Your task to perform on an android device: see tabs open on other devices in the chrome app Image 0: 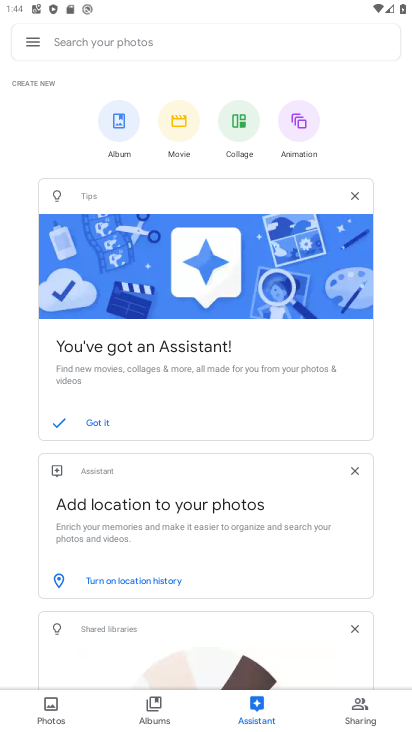
Step 0: press home button
Your task to perform on an android device: see tabs open on other devices in the chrome app Image 1: 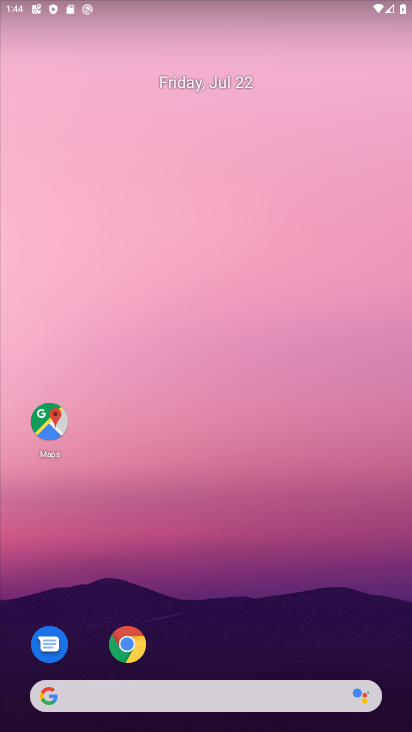
Step 1: drag from (237, 644) to (246, 150)
Your task to perform on an android device: see tabs open on other devices in the chrome app Image 2: 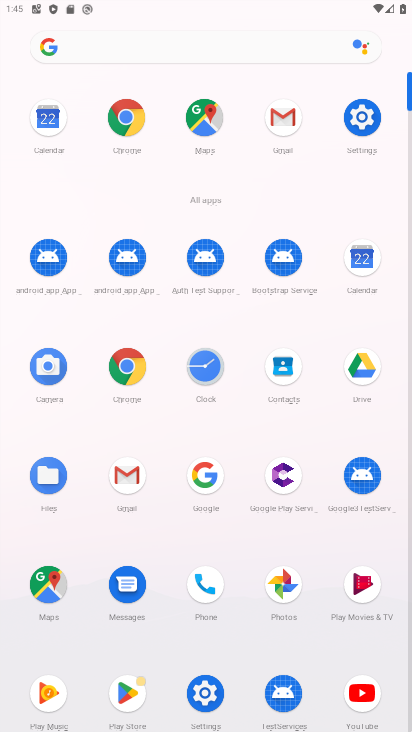
Step 2: click (126, 110)
Your task to perform on an android device: see tabs open on other devices in the chrome app Image 3: 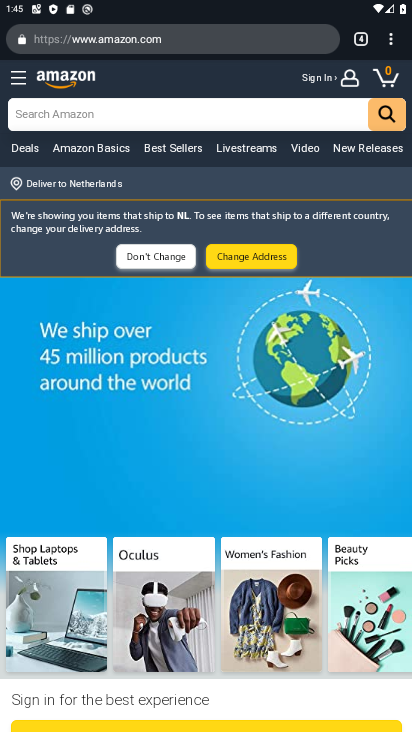
Step 3: click (394, 37)
Your task to perform on an android device: see tabs open on other devices in the chrome app Image 4: 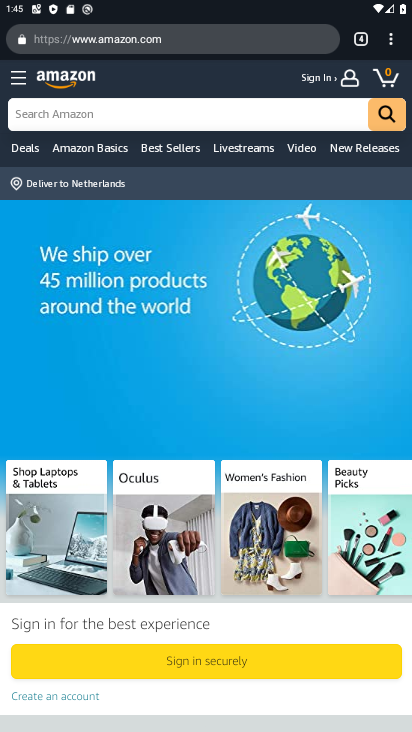
Step 4: click (392, 38)
Your task to perform on an android device: see tabs open on other devices in the chrome app Image 5: 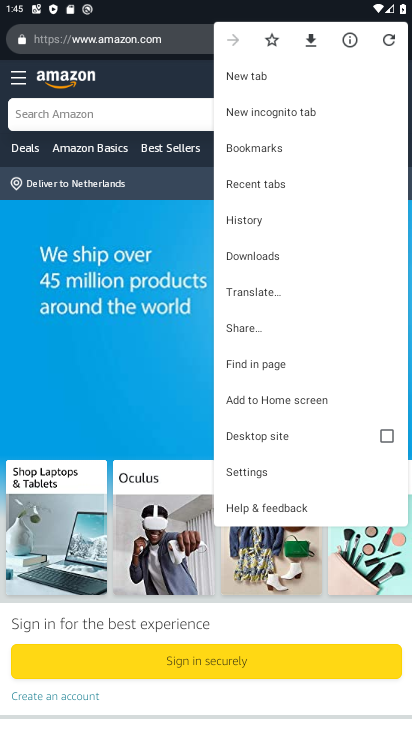
Step 5: click (249, 221)
Your task to perform on an android device: see tabs open on other devices in the chrome app Image 6: 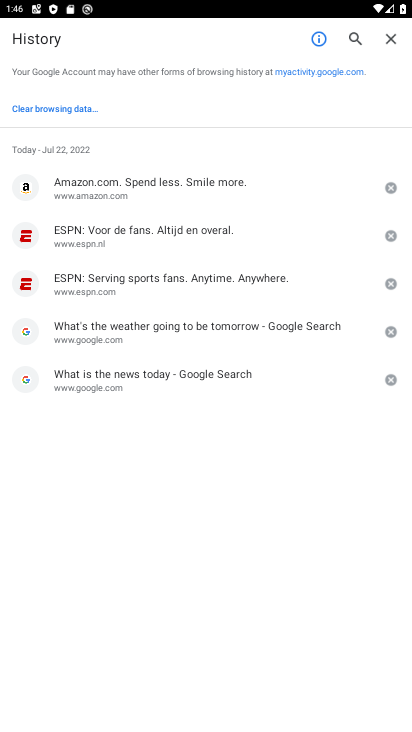
Step 6: task complete